Your task to perform on an android device: Add usb-b to the cart on walmart.com Image 0: 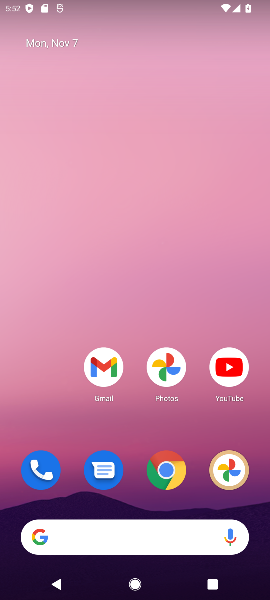
Step 0: click (165, 478)
Your task to perform on an android device: Add usb-b to the cart on walmart.com Image 1: 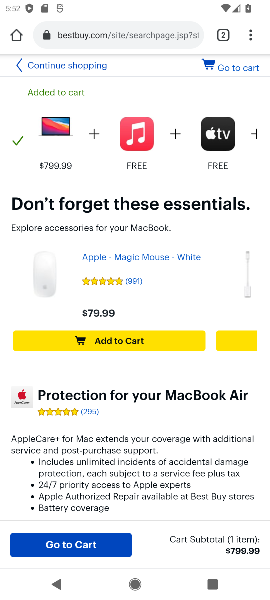
Step 1: click (98, 31)
Your task to perform on an android device: Add usb-b to the cart on walmart.com Image 2: 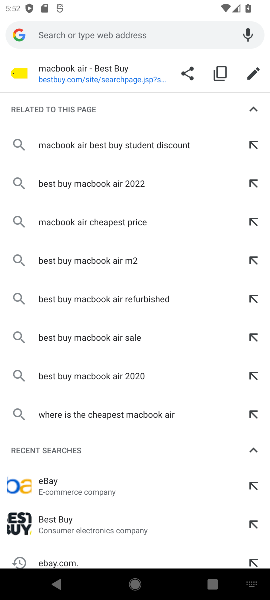
Step 2: click (98, 31)
Your task to perform on an android device: Add usb-b to the cart on walmart.com Image 3: 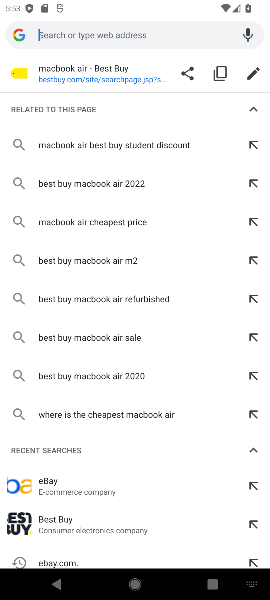
Step 3: type "walmart"
Your task to perform on an android device: Add usb-b to the cart on walmart.com Image 4: 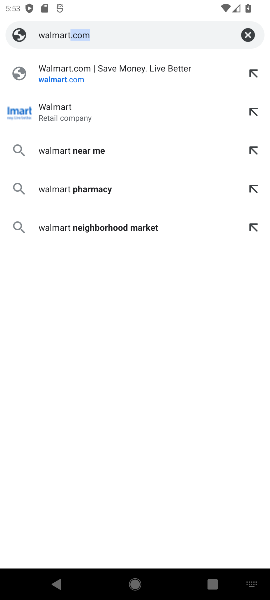
Step 4: click (50, 108)
Your task to perform on an android device: Add usb-b to the cart on walmart.com Image 5: 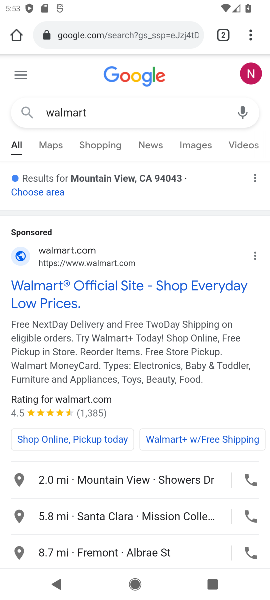
Step 5: click (61, 281)
Your task to perform on an android device: Add usb-b to the cart on walmart.com Image 6: 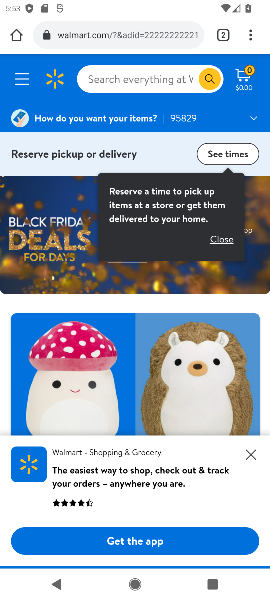
Step 6: click (144, 85)
Your task to perform on an android device: Add usb-b to the cart on walmart.com Image 7: 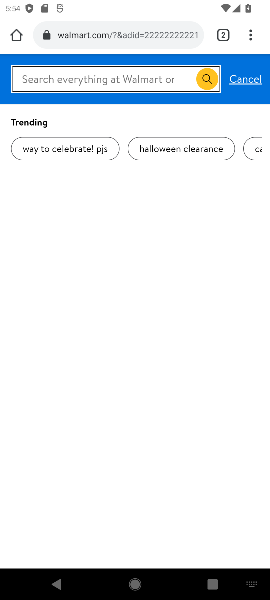
Step 7: type " usb-b "
Your task to perform on an android device: Add usb-b to the cart on walmart.com Image 8: 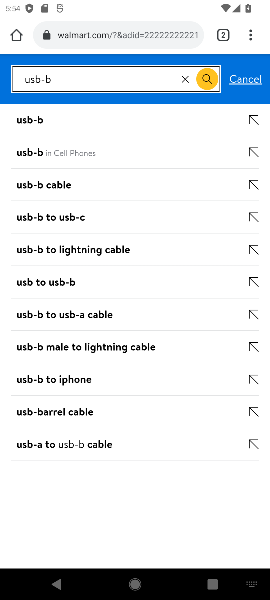
Step 8: click (46, 117)
Your task to perform on an android device: Add usb-b to the cart on walmart.com Image 9: 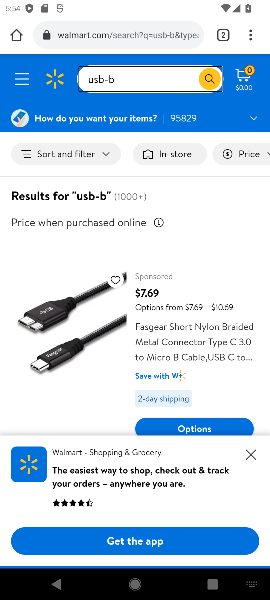
Step 9: click (256, 453)
Your task to perform on an android device: Add usb-b to the cart on walmart.com Image 10: 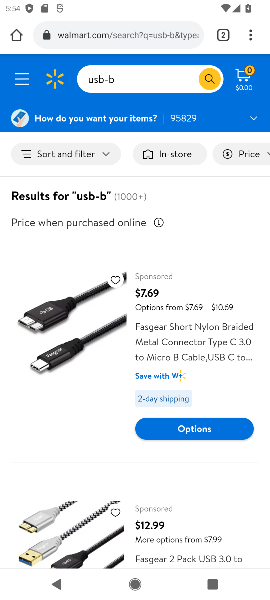
Step 10: click (179, 408)
Your task to perform on an android device: Add usb-b to the cart on walmart.com Image 11: 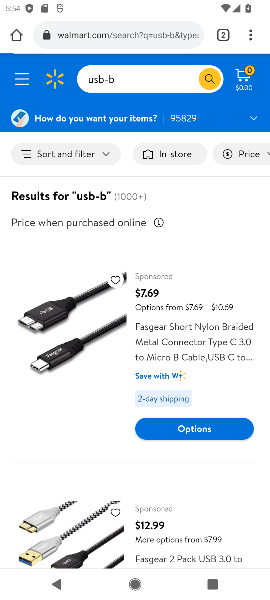
Step 11: click (165, 417)
Your task to perform on an android device: Add usb-b to the cart on walmart.com Image 12: 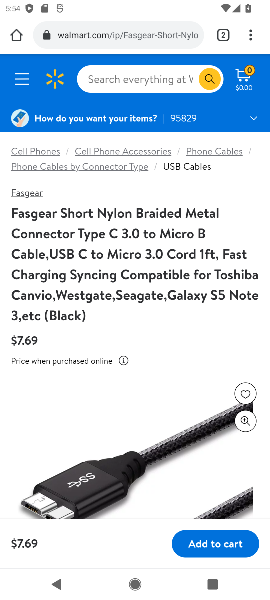
Step 12: click (204, 541)
Your task to perform on an android device: Add usb-b to the cart on walmart.com Image 13: 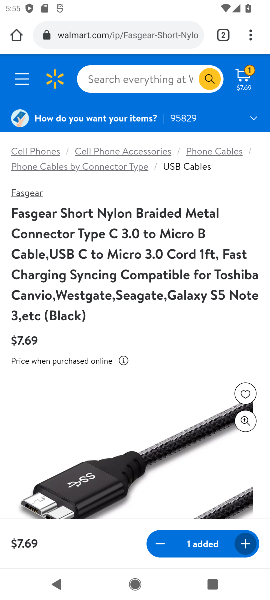
Step 13: task complete